Your task to perform on an android device: open app "Google Duo" Image 0: 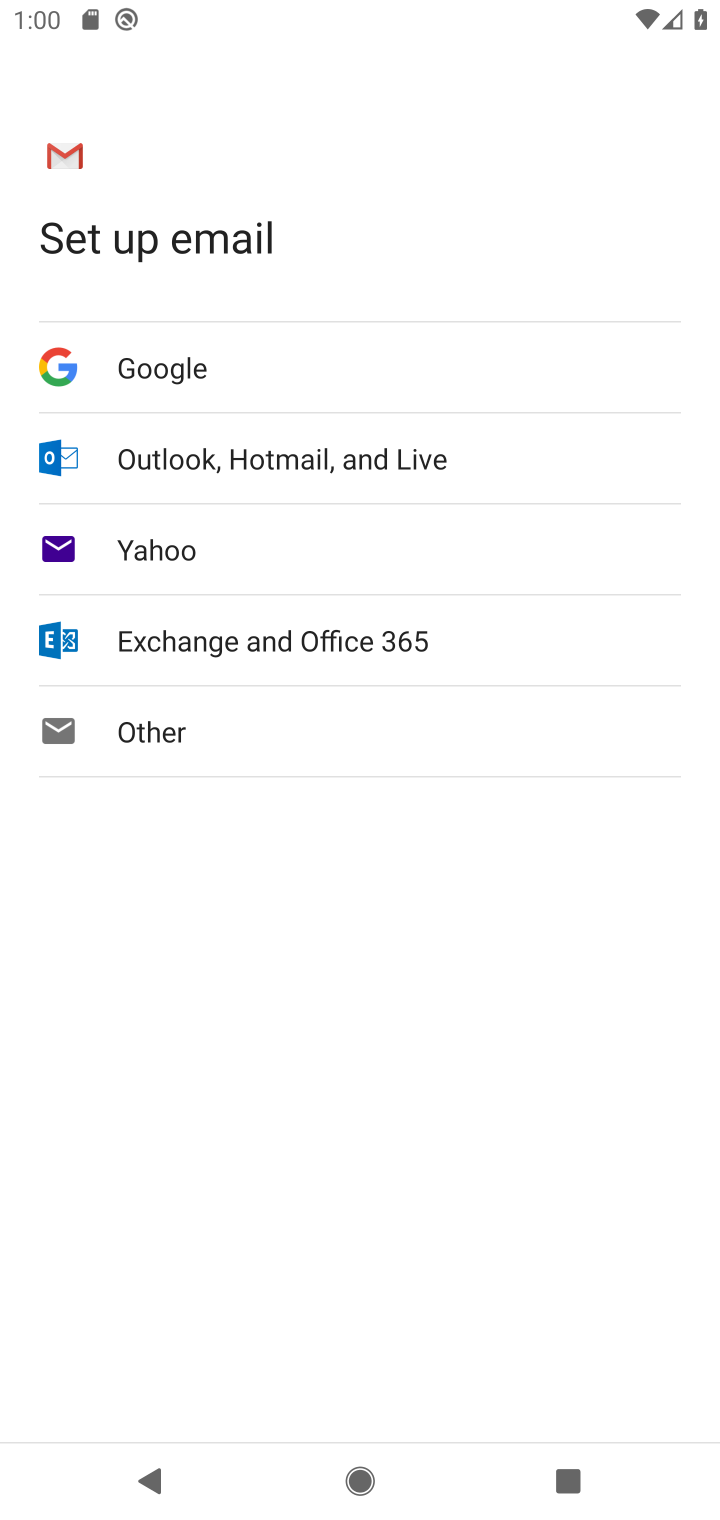
Step 0: press home button
Your task to perform on an android device: open app "Google Duo" Image 1: 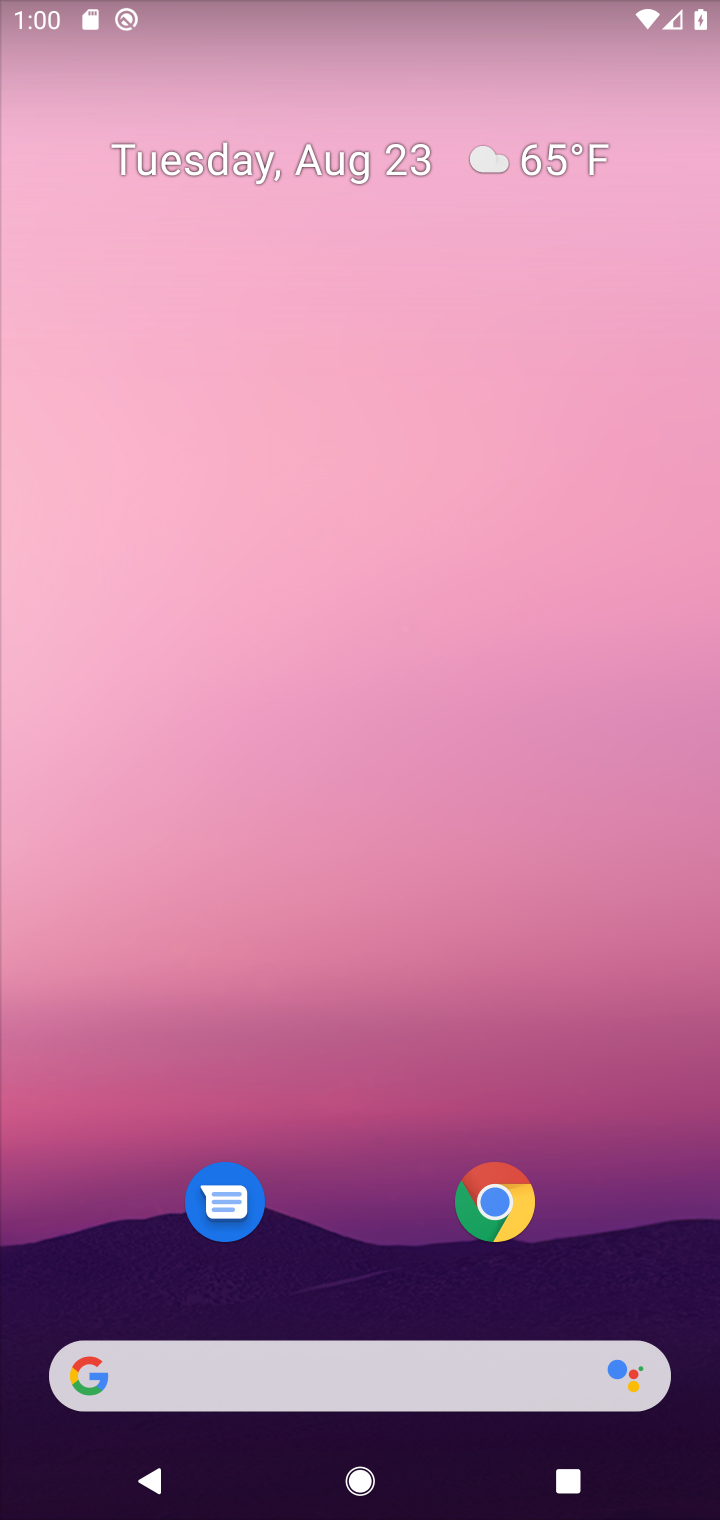
Step 1: drag from (276, 1182) to (310, 386)
Your task to perform on an android device: open app "Google Duo" Image 2: 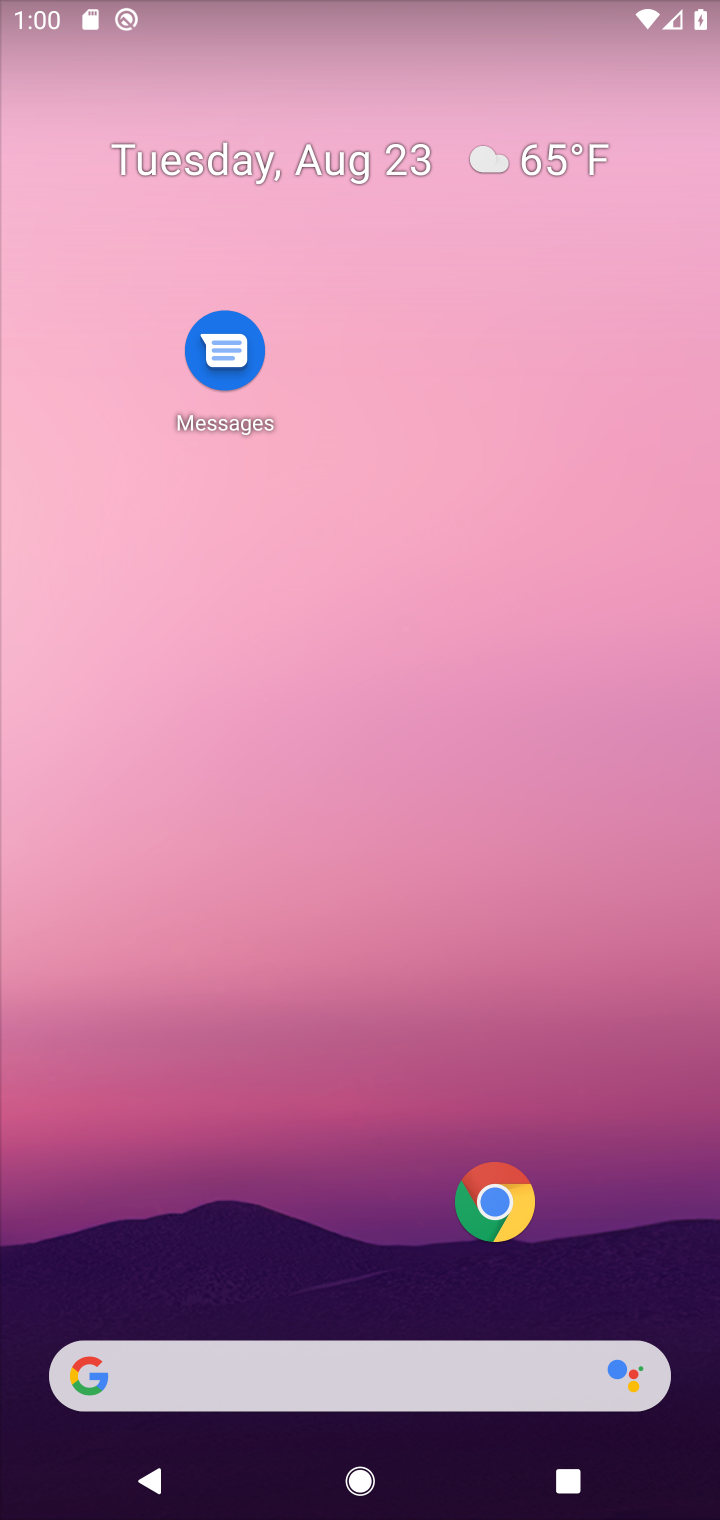
Step 2: drag from (380, 1363) to (342, 454)
Your task to perform on an android device: open app "Google Duo" Image 3: 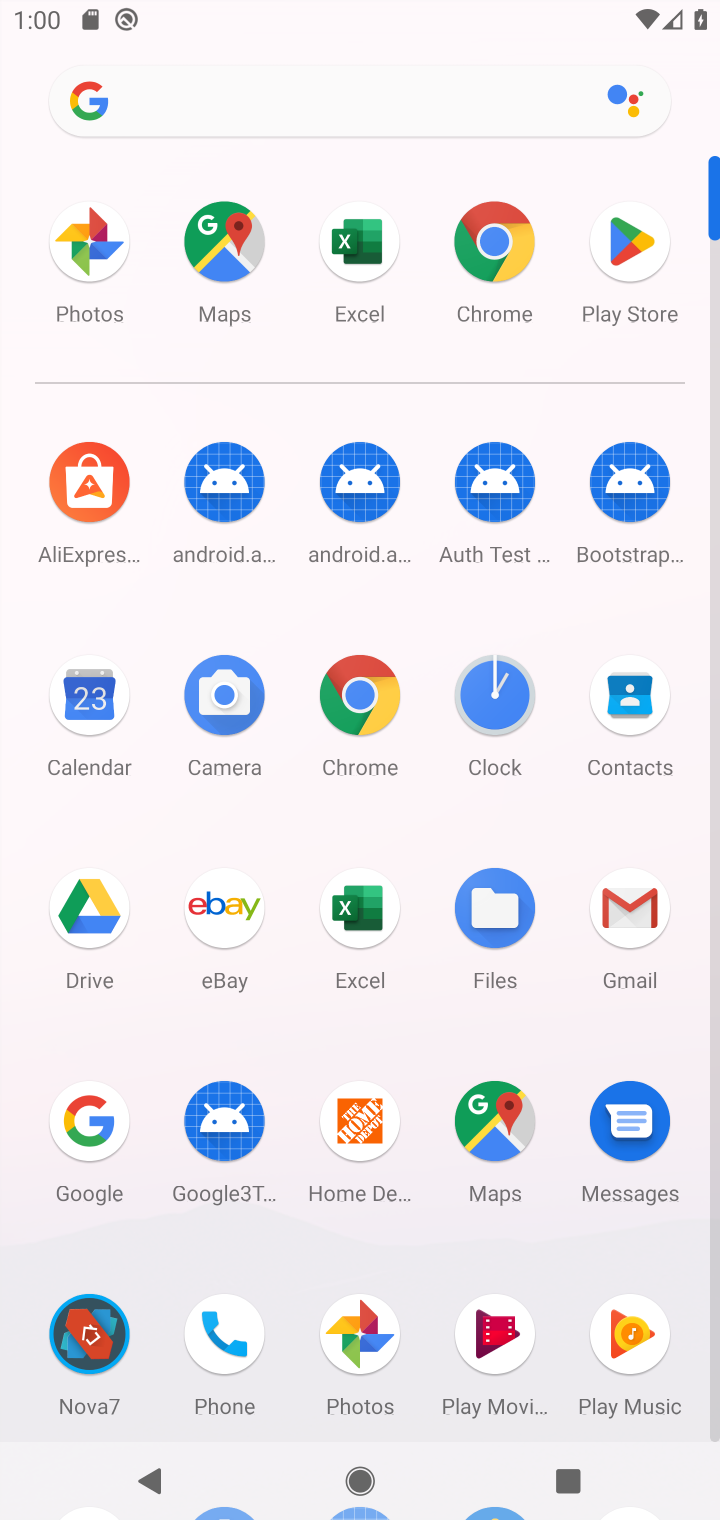
Step 3: click (634, 245)
Your task to perform on an android device: open app "Google Duo" Image 4: 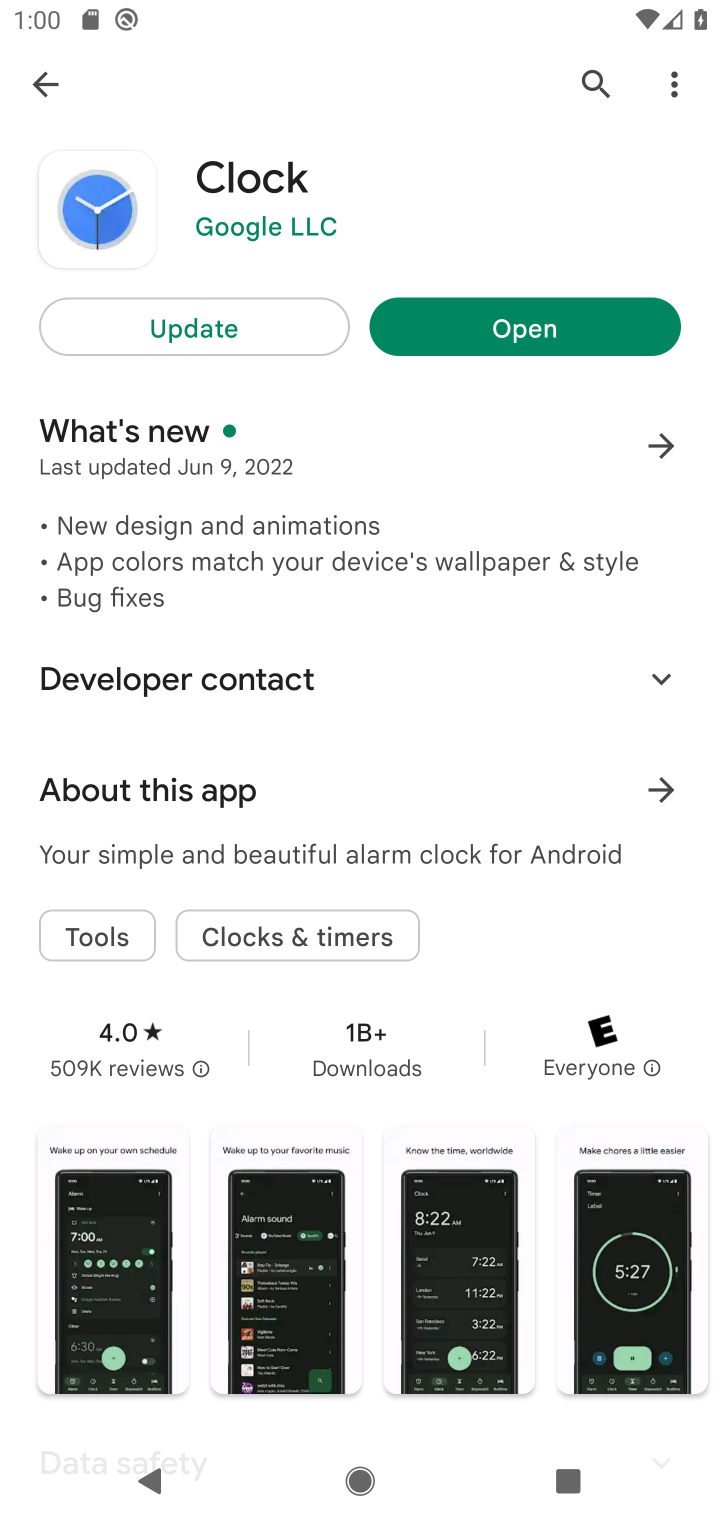
Step 4: click (585, 97)
Your task to perform on an android device: open app "Google Duo" Image 5: 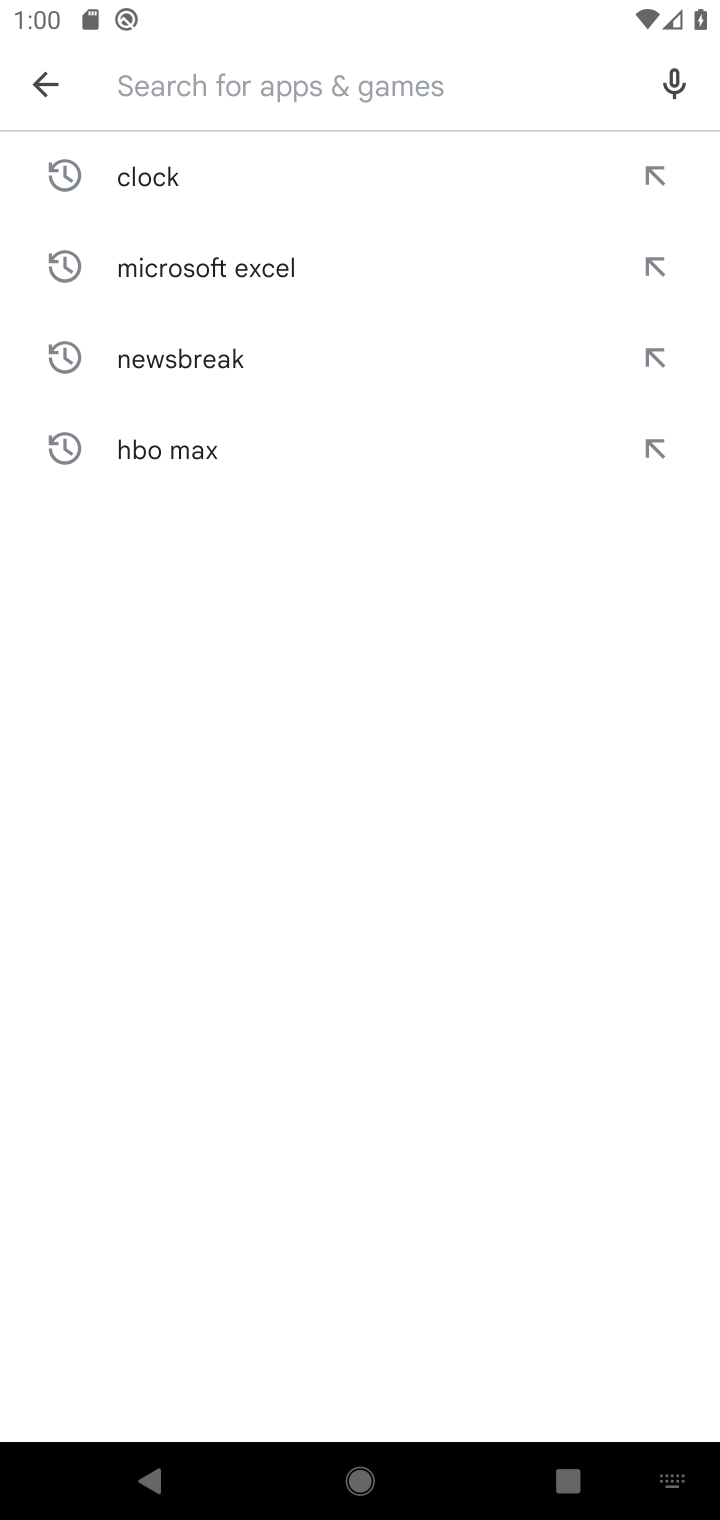
Step 5: type "google duo"
Your task to perform on an android device: open app "Google Duo" Image 6: 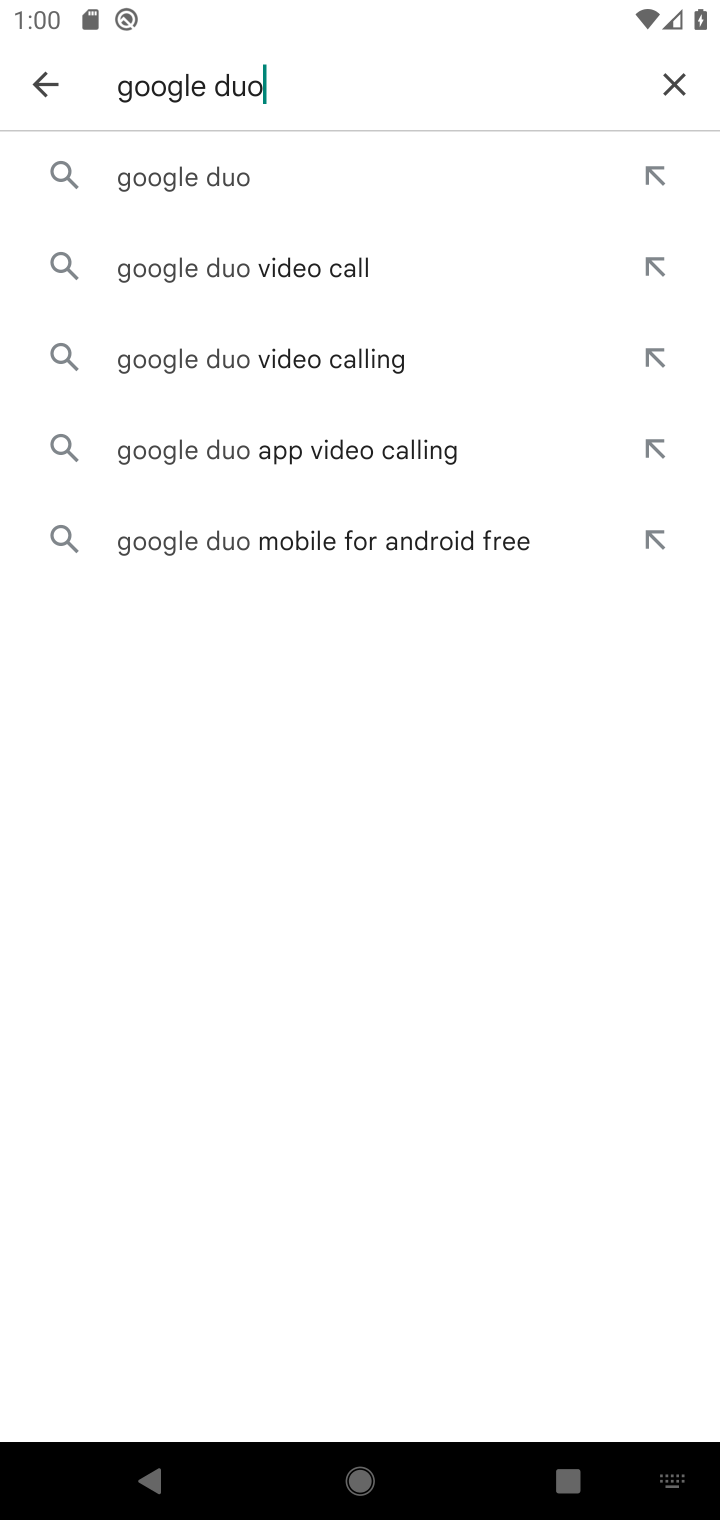
Step 6: click (198, 160)
Your task to perform on an android device: open app "Google Duo" Image 7: 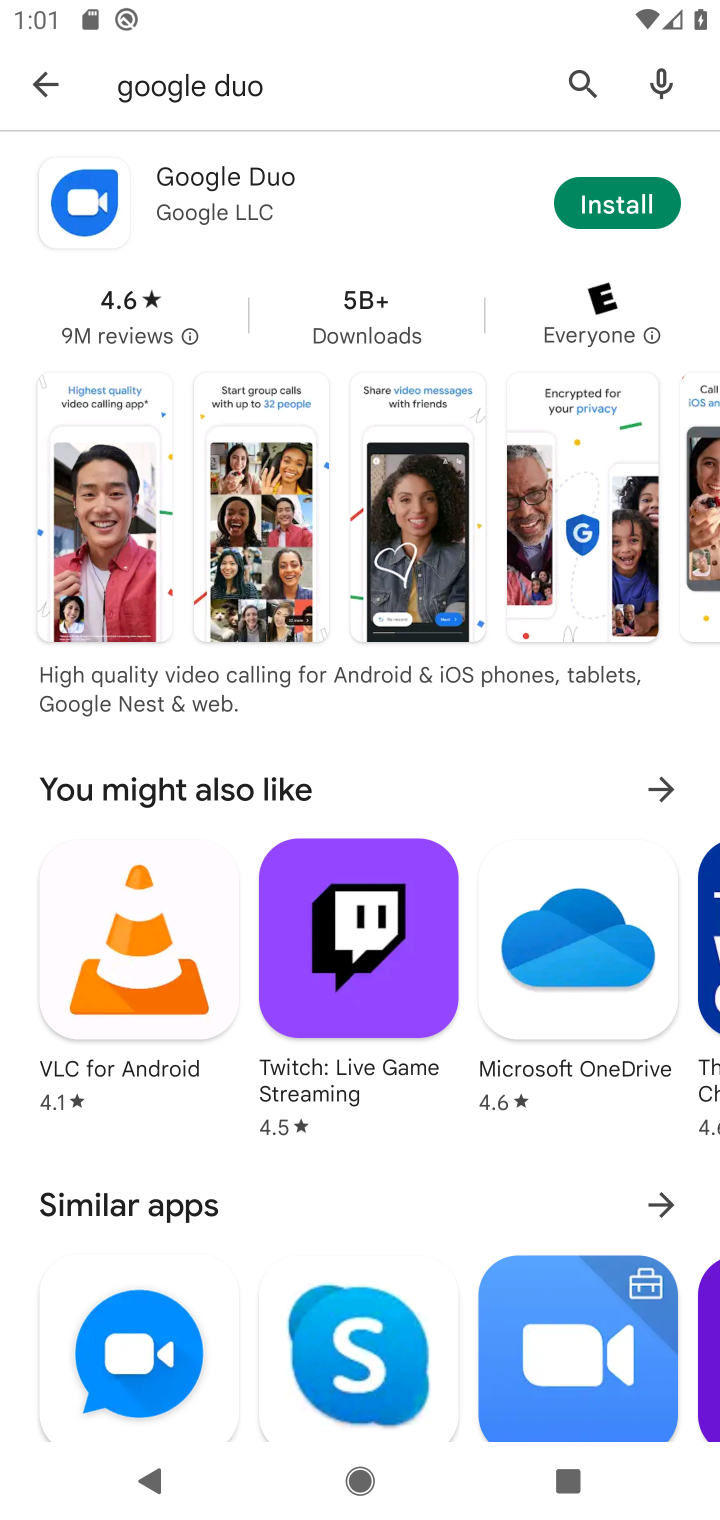
Step 7: task complete